Your task to perform on an android device: check storage Image 0: 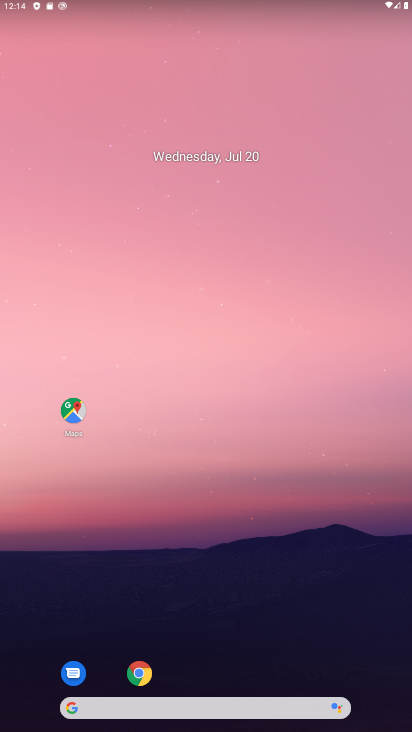
Step 0: drag from (228, 661) to (243, 4)
Your task to perform on an android device: check storage Image 1: 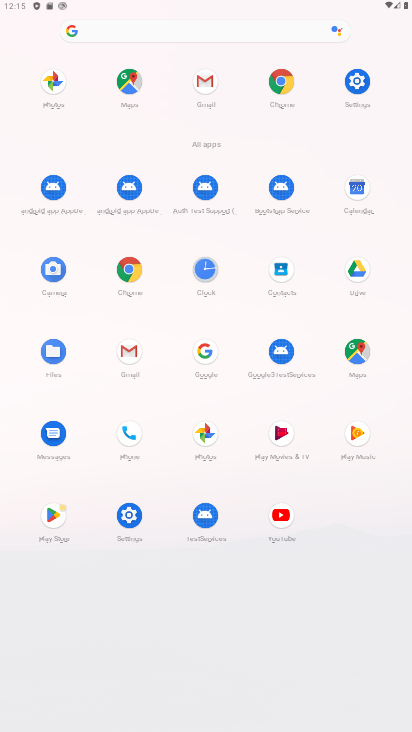
Step 1: click (138, 527)
Your task to perform on an android device: check storage Image 2: 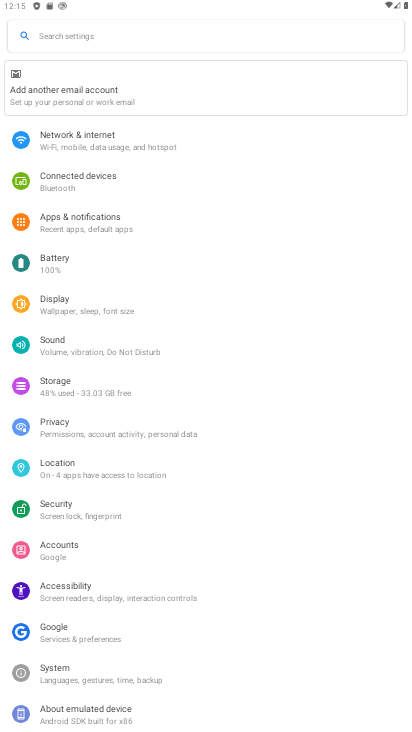
Step 2: click (99, 391)
Your task to perform on an android device: check storage Image 3: 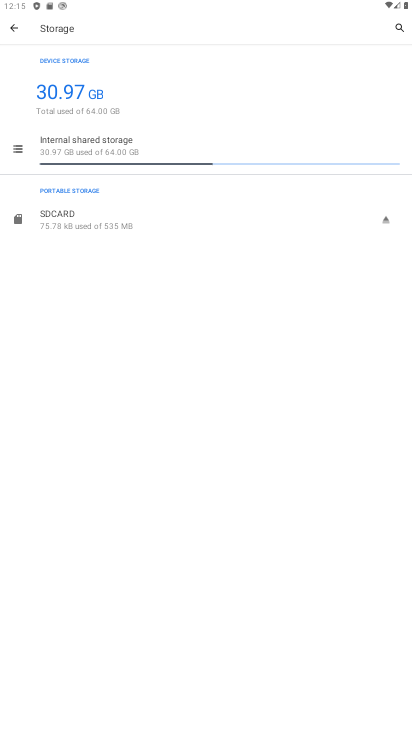
Step 3: click (81, 153)
Your task to perform on an android device: check storage Image 4: 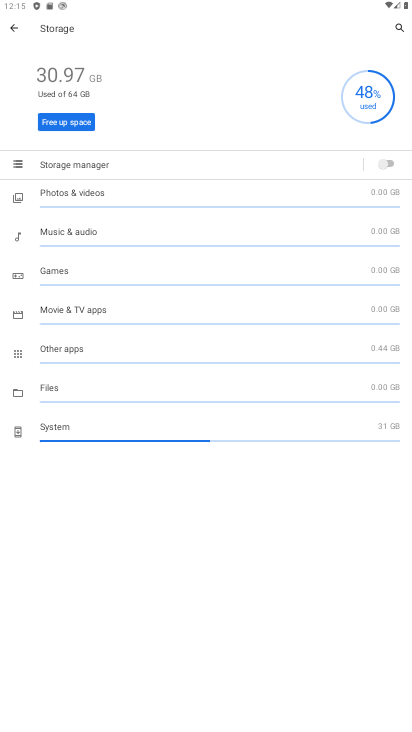
Step 4: task complete